Your task to perform on an android device: turn off location history Image 0: 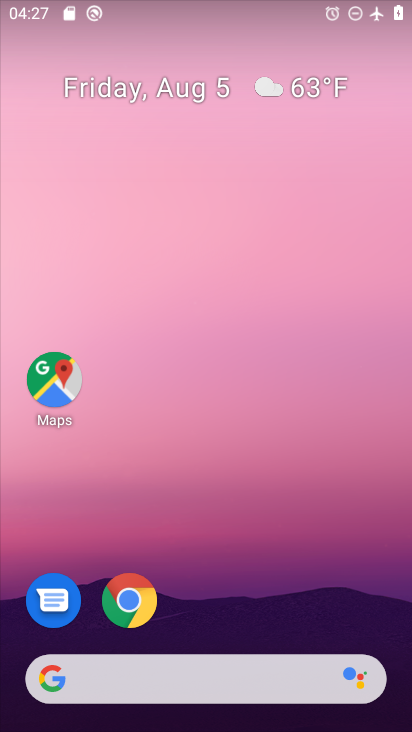
Step 0: drag from (209, 676) to (218, 131)
Your task to perform on an android device: turn off location history Image 1: 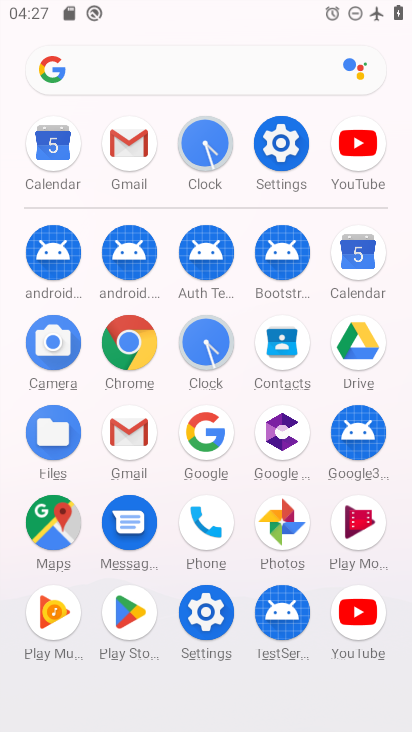
Step 1: click (281, 146)
Your task to perform on an android device: turn off location history Image 2: 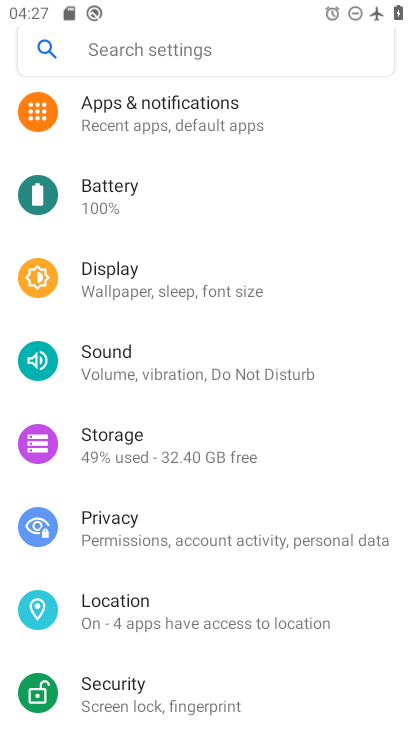
Step 2: drag from (145, 475) to (171, 306)
Your task to perform on an android device: turn off location history Image 3: 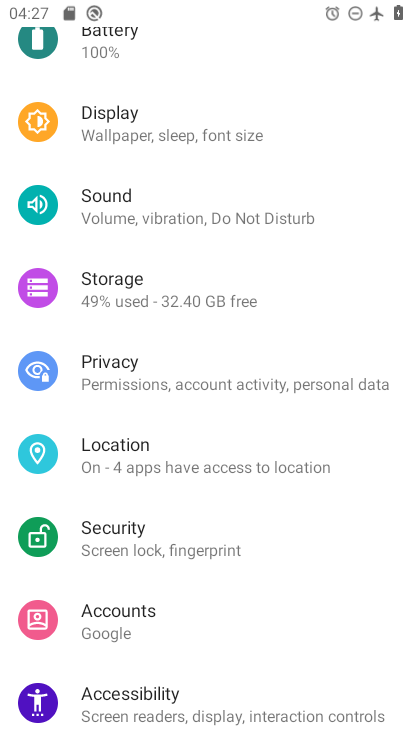
Step 3: click (176, 468)
Your task to perform on an android device: turn off location history Image 4: 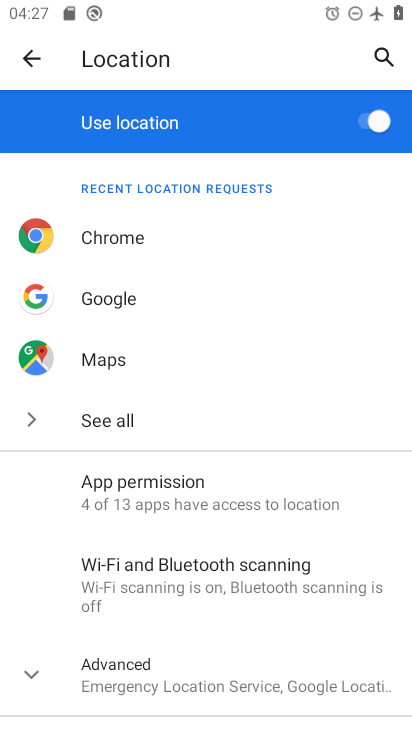
Step 4: click (179, 680)
Your task to perform on an android device: turn off location history Image 5: 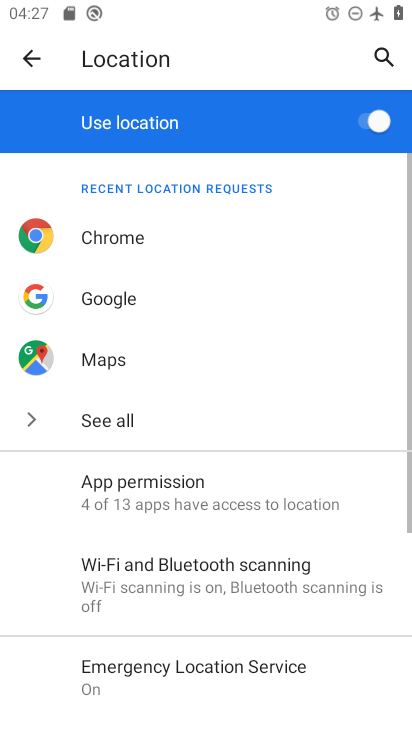
Step 5: drag from (179, 680) to (258, 393)
Your task to perform on an android device: turn off location history Image 6: 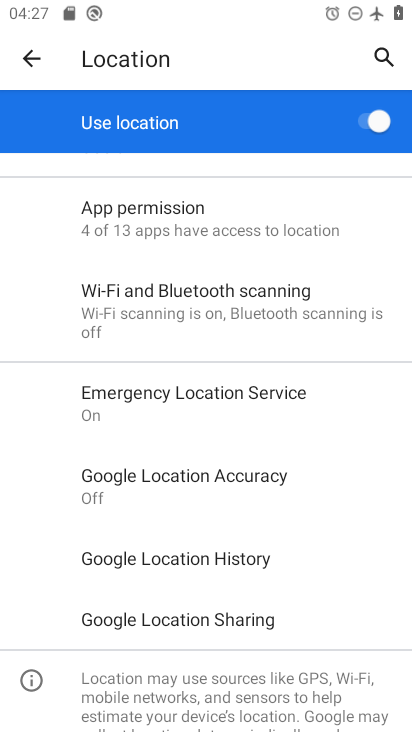
Step 6: click (183, 568)
Your task to perform on an android device: turn off location history Image 7: 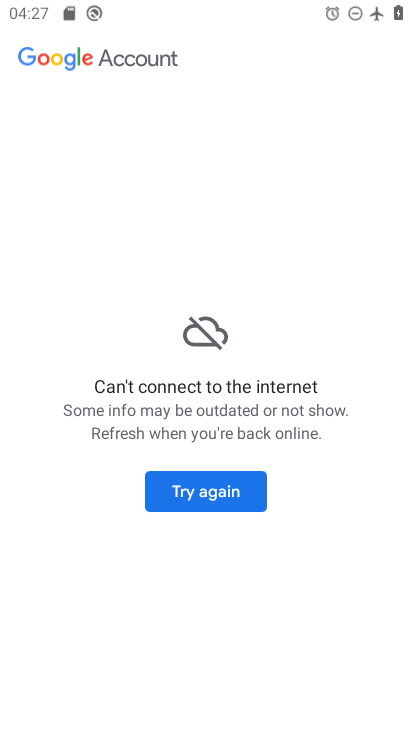
Step 7: task complete